Your task to perform on an android device: open app "VLC for Android" (install if not already installed), go to login, and select forgot password Image 0: 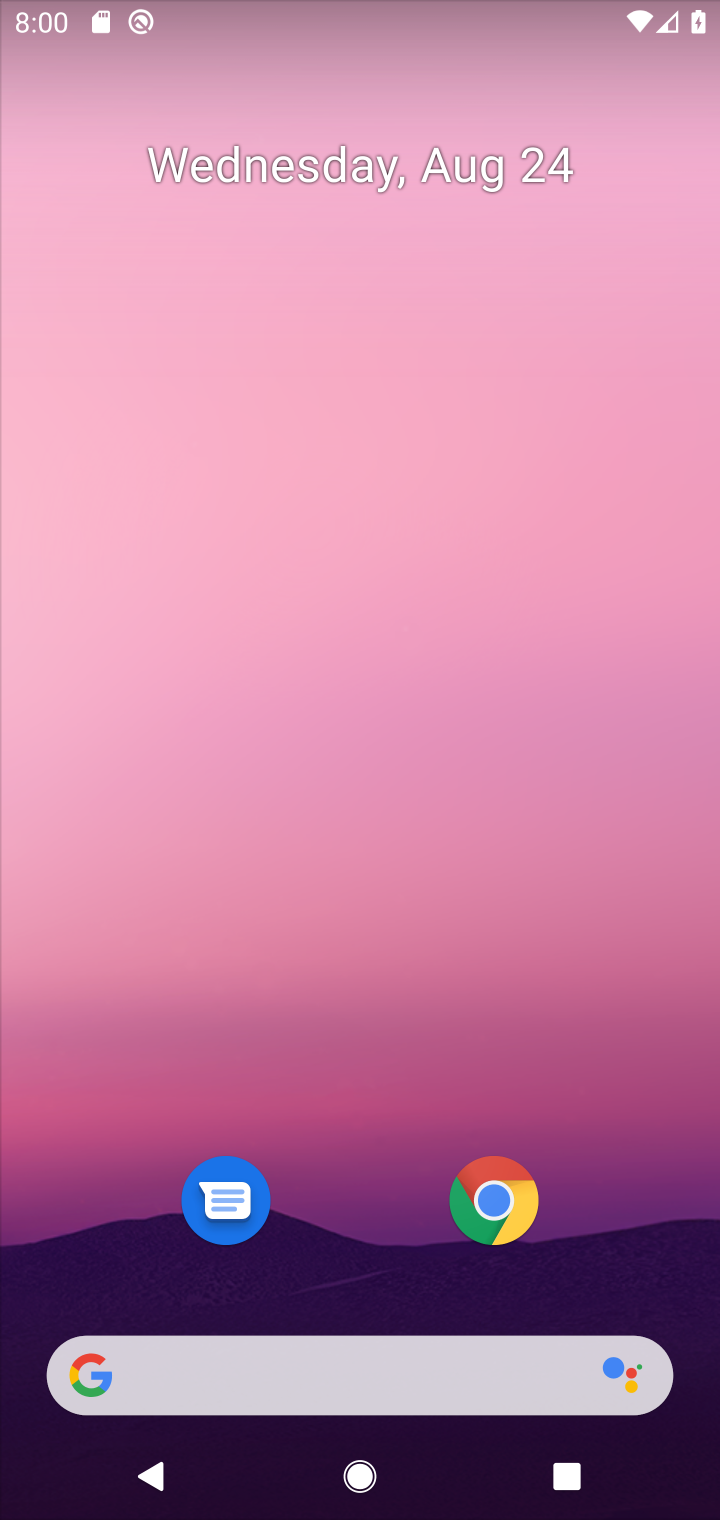
Step 0: drag from (328, 969) to (340, 4)
Your task to perform on an android device: open app "VLC for Android" (install if not already installed), go to login, and select forgot password Image 1: 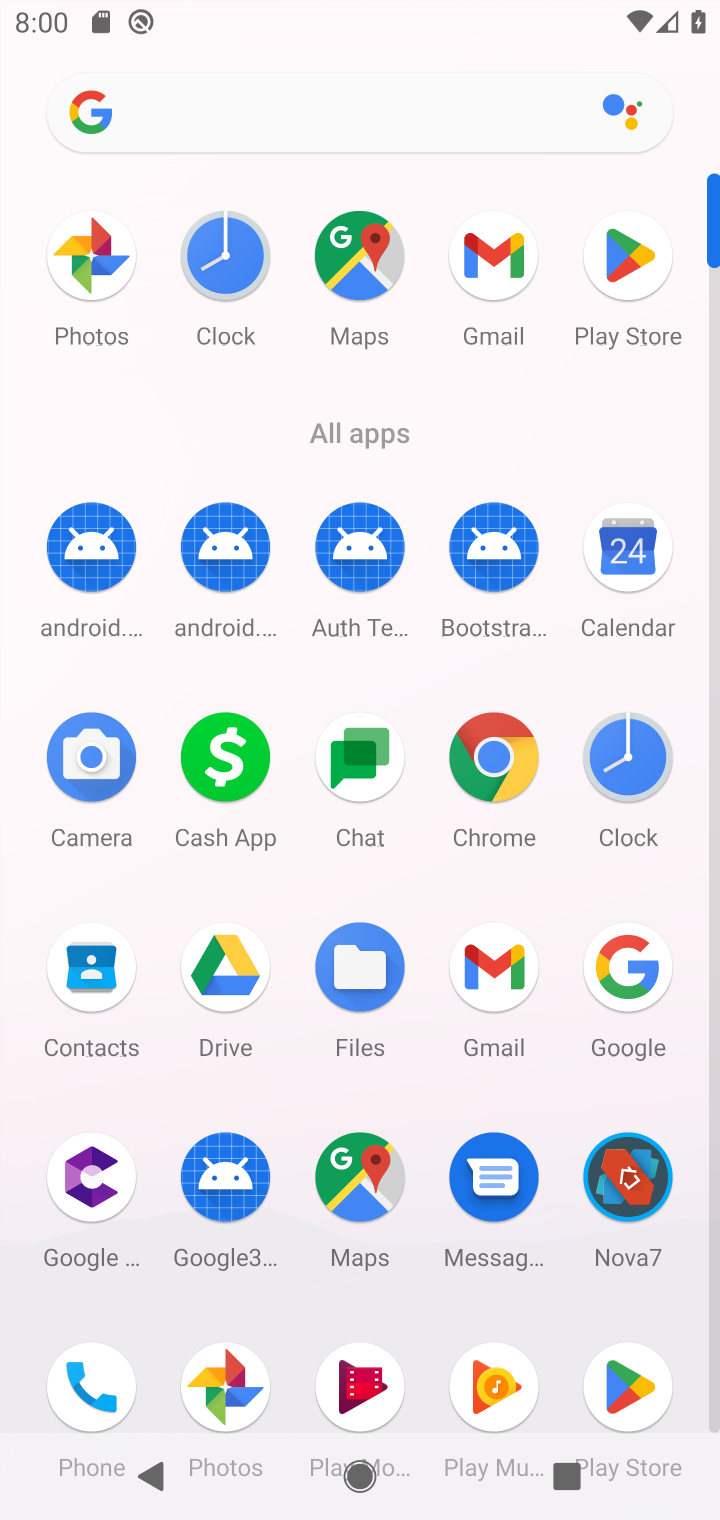
Step 1: click (652, 296)
Your task to perform on an android device: open app "VLC for Android" (install if not already installed), go to login, and select forgot password Image 2: 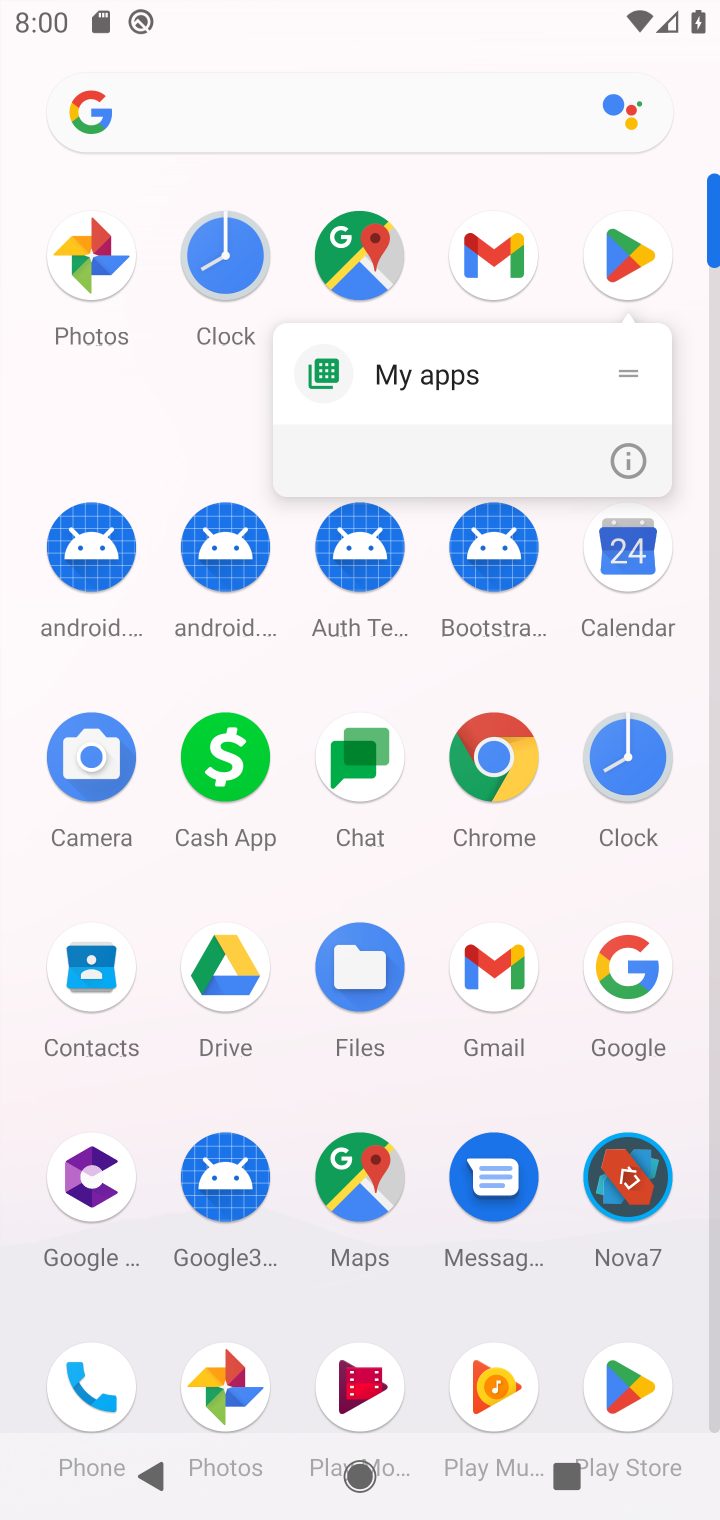
Step 2: click (642, 225)
Your task to perform on an android device: open app "VLC for Android" (install if not already installed), go to login, and select forgot password Image 3: 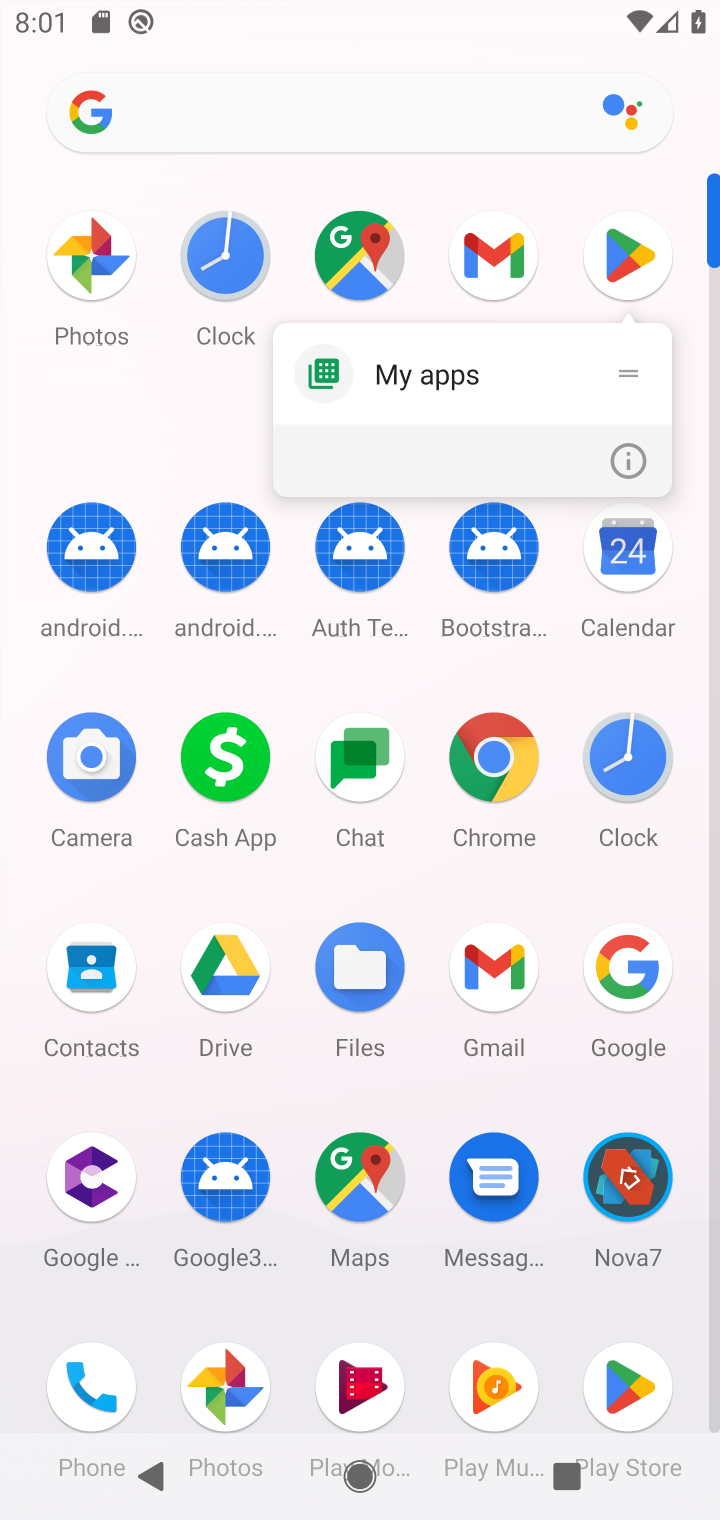
Step 3: click (617, 261)
Your task to perform on an android device: open app "VLC for Android" (install if not already installed), go to login, and select forgot password Image 4: 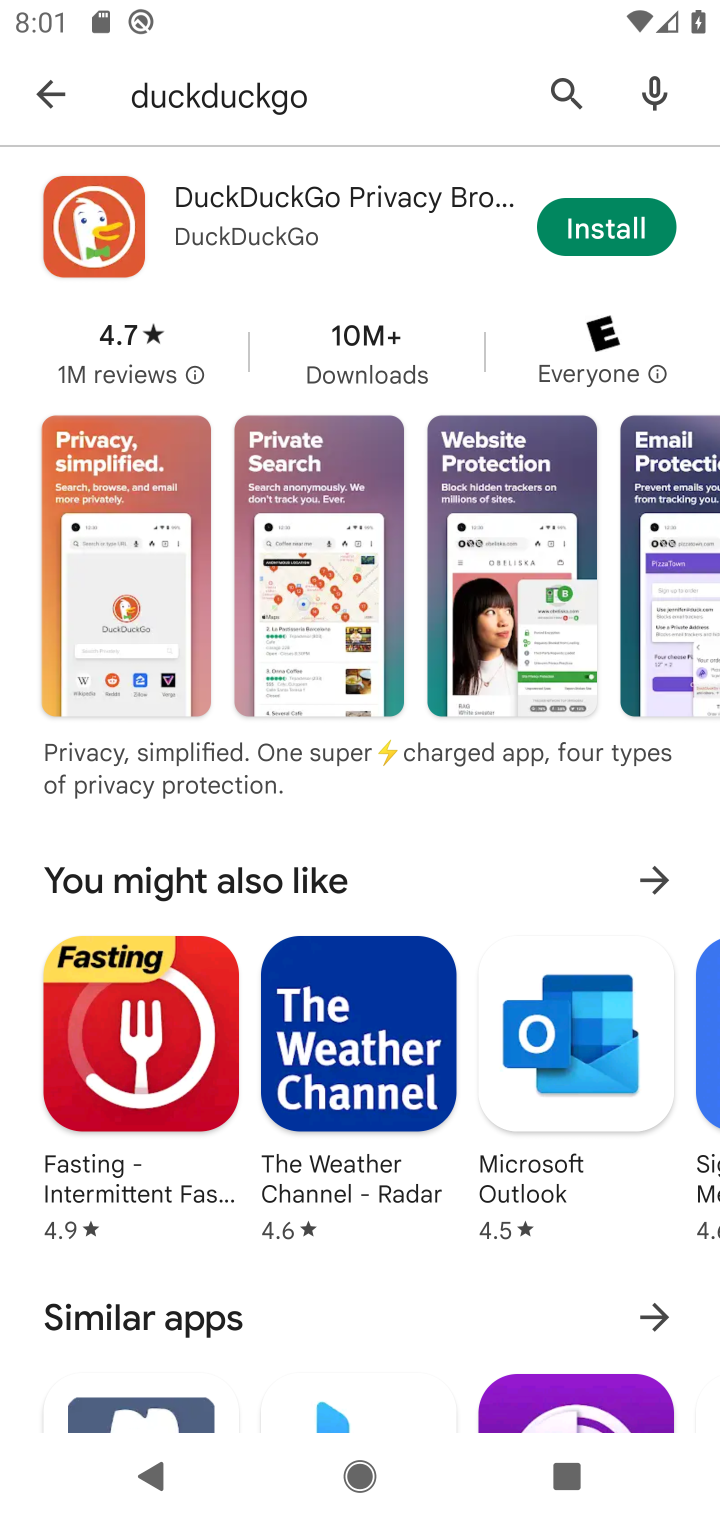
Step 4: click (315, 102)
Your task to perform on an android device: open app "VLC for Android" (install if not already installed), go to login, and select forgot password Image 5: 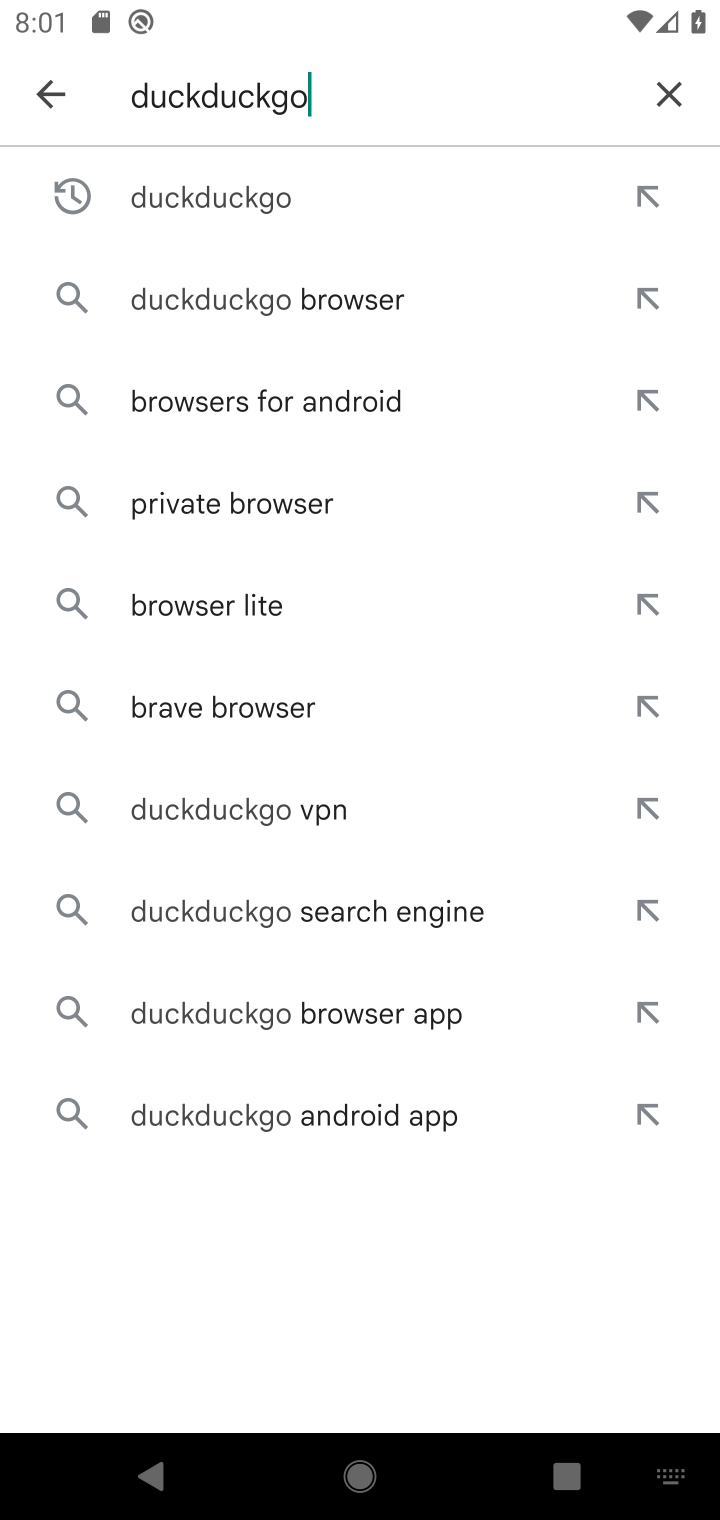
Step 5: click (664, 88)
Your task to perform on an android device: open app "VLC for Android" (install if not already installed), go to login, and select forgot password Image 6: 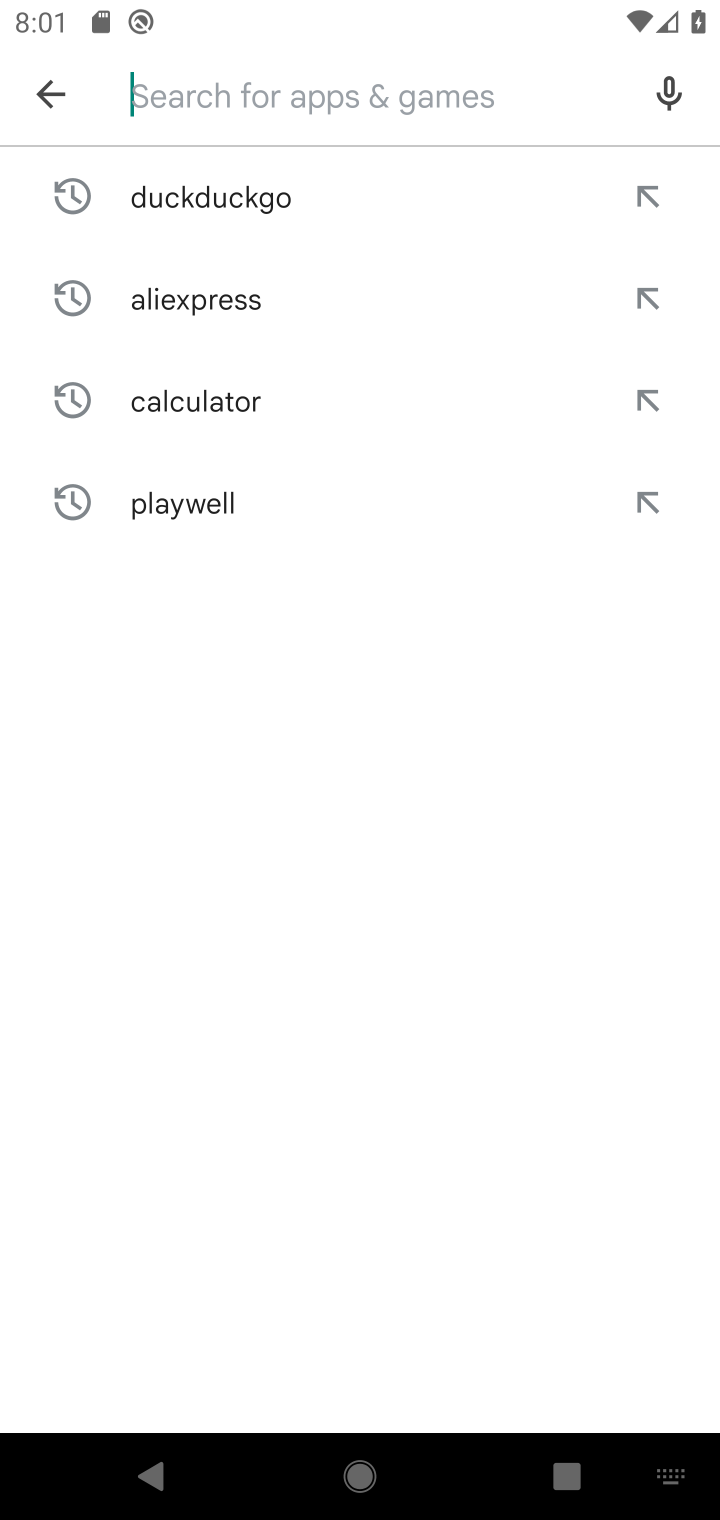
Step 6: type "VLC"
Your task to perform on an android device: open app "VLC for Android" (install if not already installed), go to login, and select forgot password Image 7: 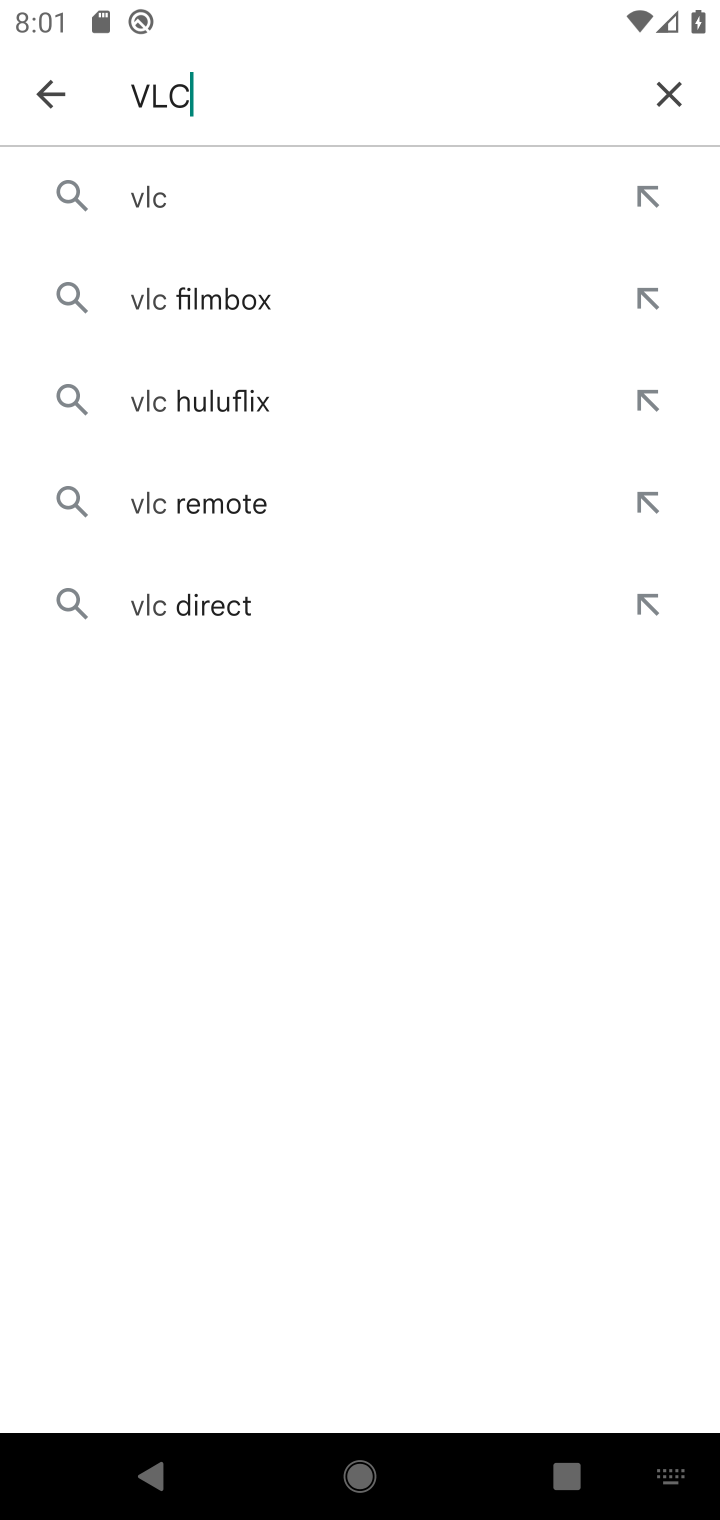
Step 7: click (264, 202)
Your task to perform on an android device: open app "VLC for Android" (install if not already installed), go to login, and select forgot password Image 8: 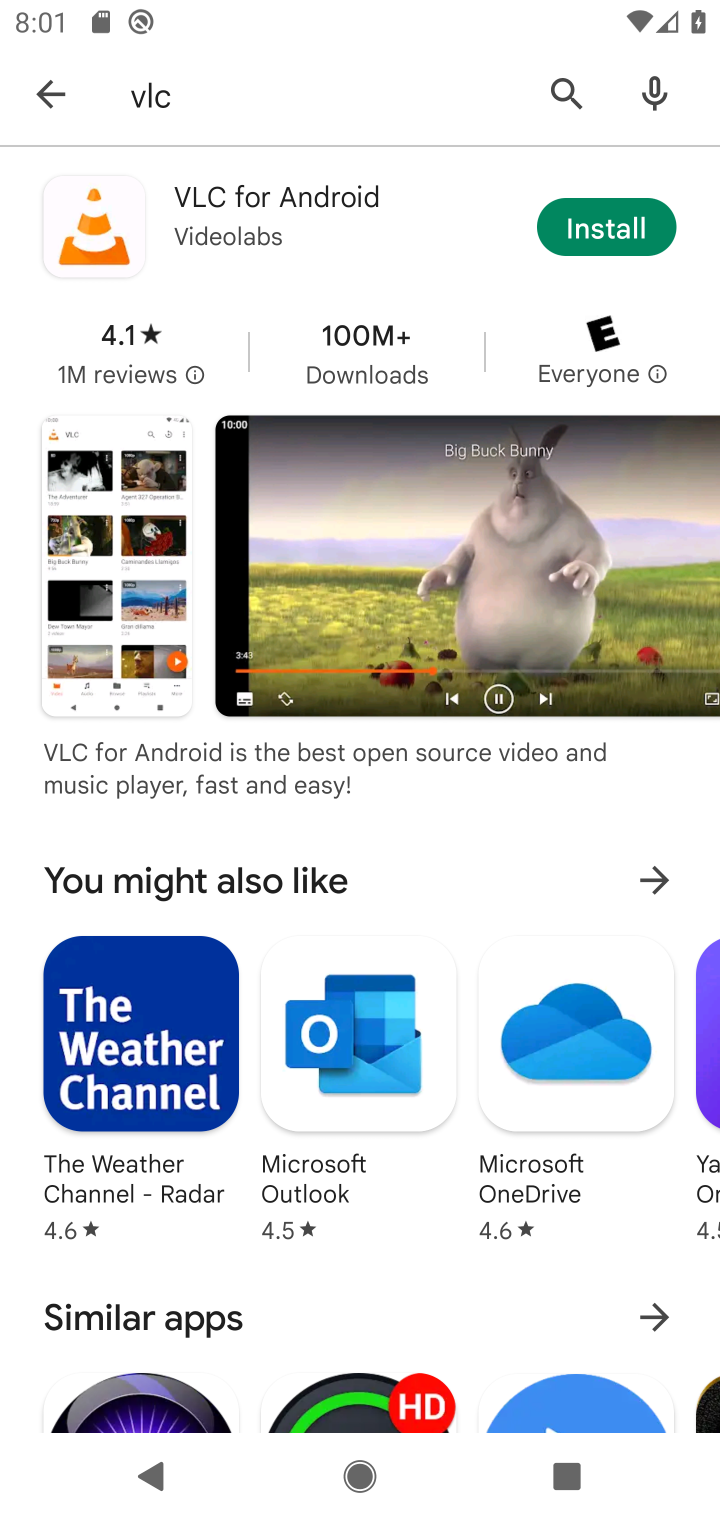
Step 8: click (651, 218)
Your task to perform on an android device: open app "VLC for Android" (install if not already installed), go to login, and select forgot password Image 9: 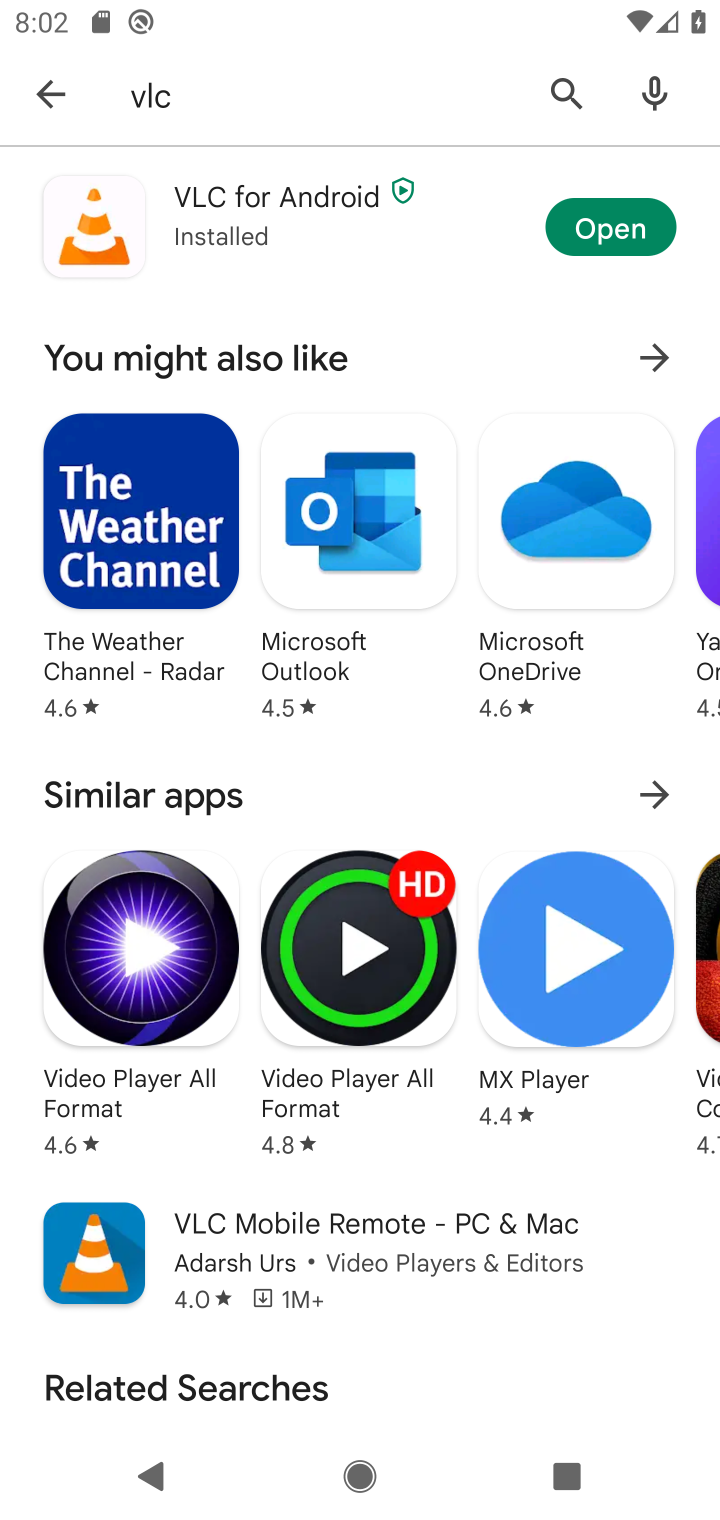
Step 9: click (584, 217)
Your task to perform on an android device: open app "VLC for Android" (install if not already installed), go to login, and select forgot password Image 10: 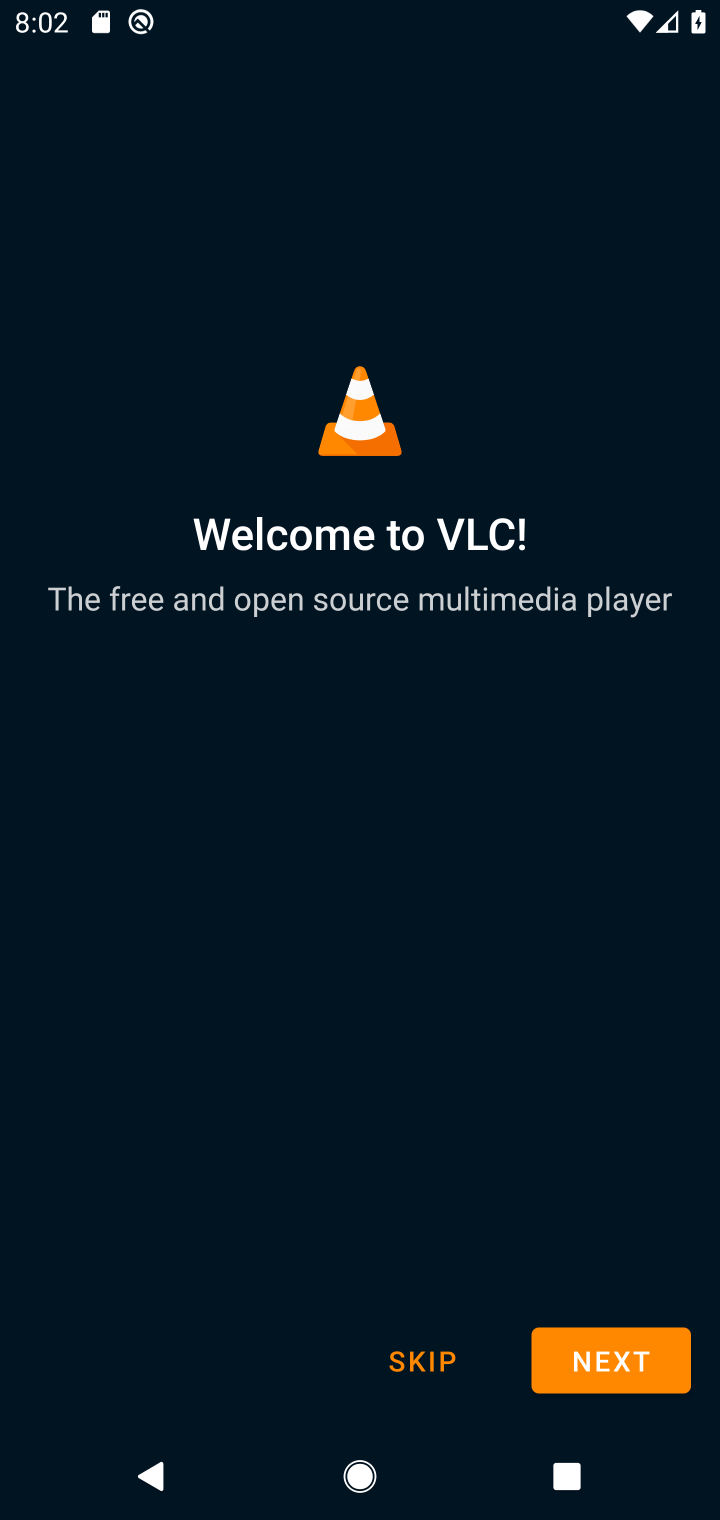
Step 10: click (621, 1376)
Your task to perform on an android device: open app "VLC for Android" (install if not already installed), go to login, and select forgot password Image 11: 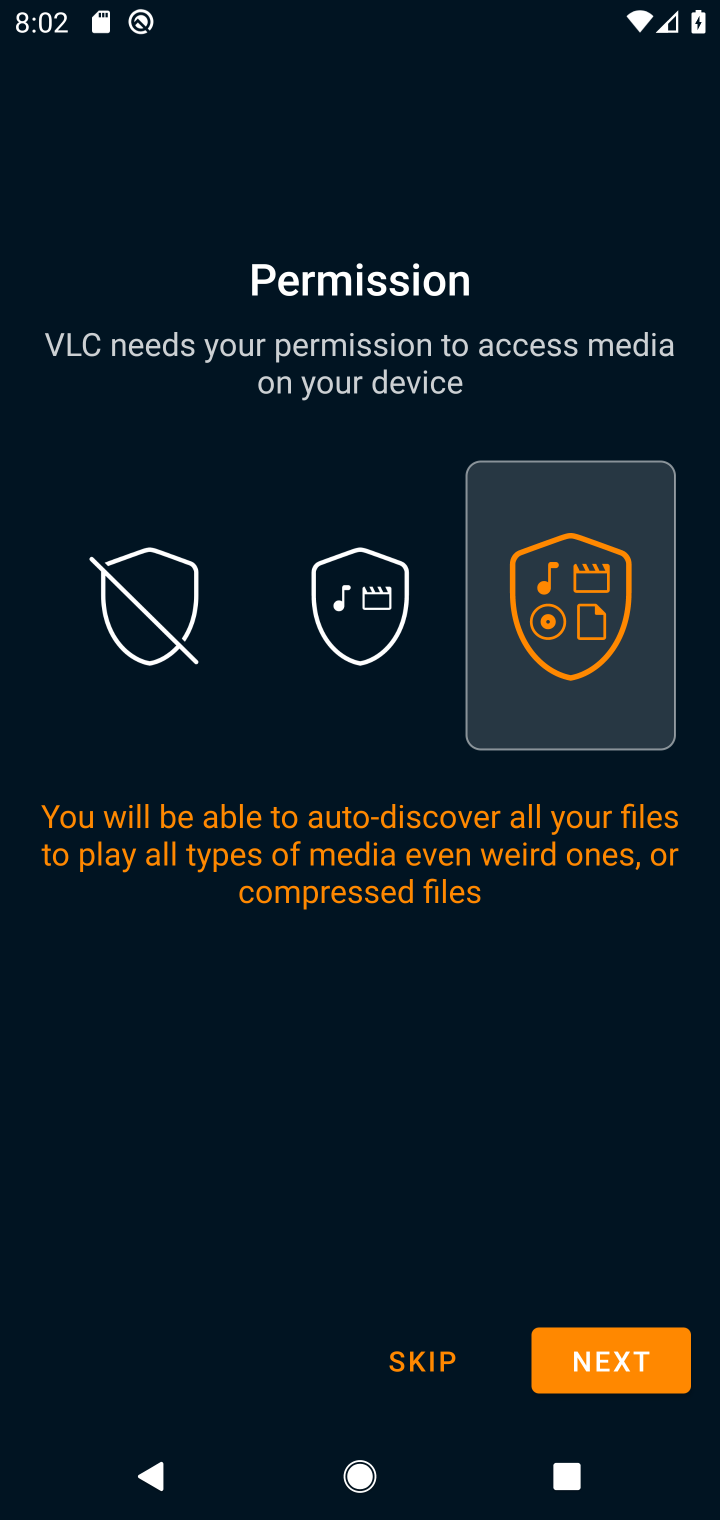
Step 11: click (613, 1346)
Your task to perform on an android device: open app "VLC for Android" (install if not already installed), go to login, and select forgot password Image 12: 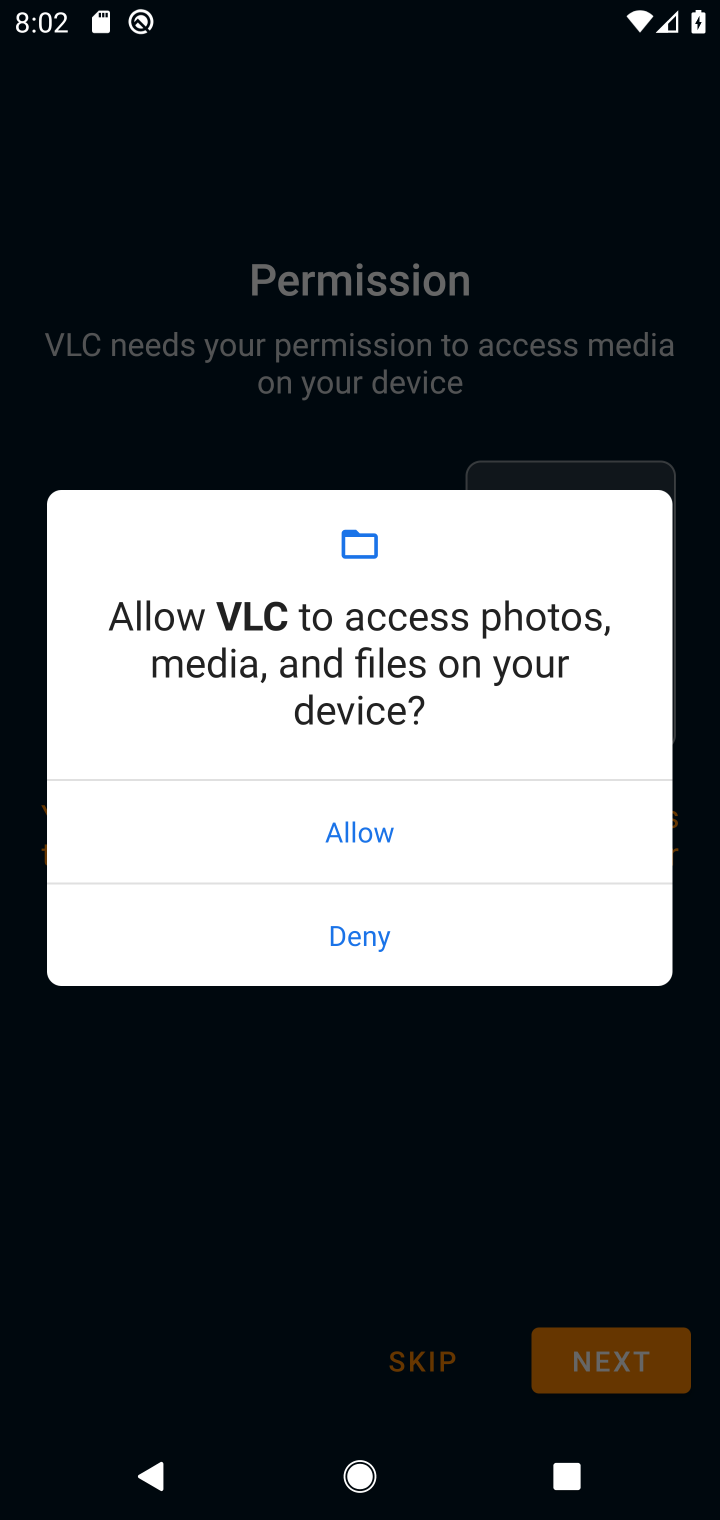
Step 12: click (368, 832)
Your task to perform on an android device: open app "VLC for Android" (install if not already installed), go to login, and select forgot password Image 13: 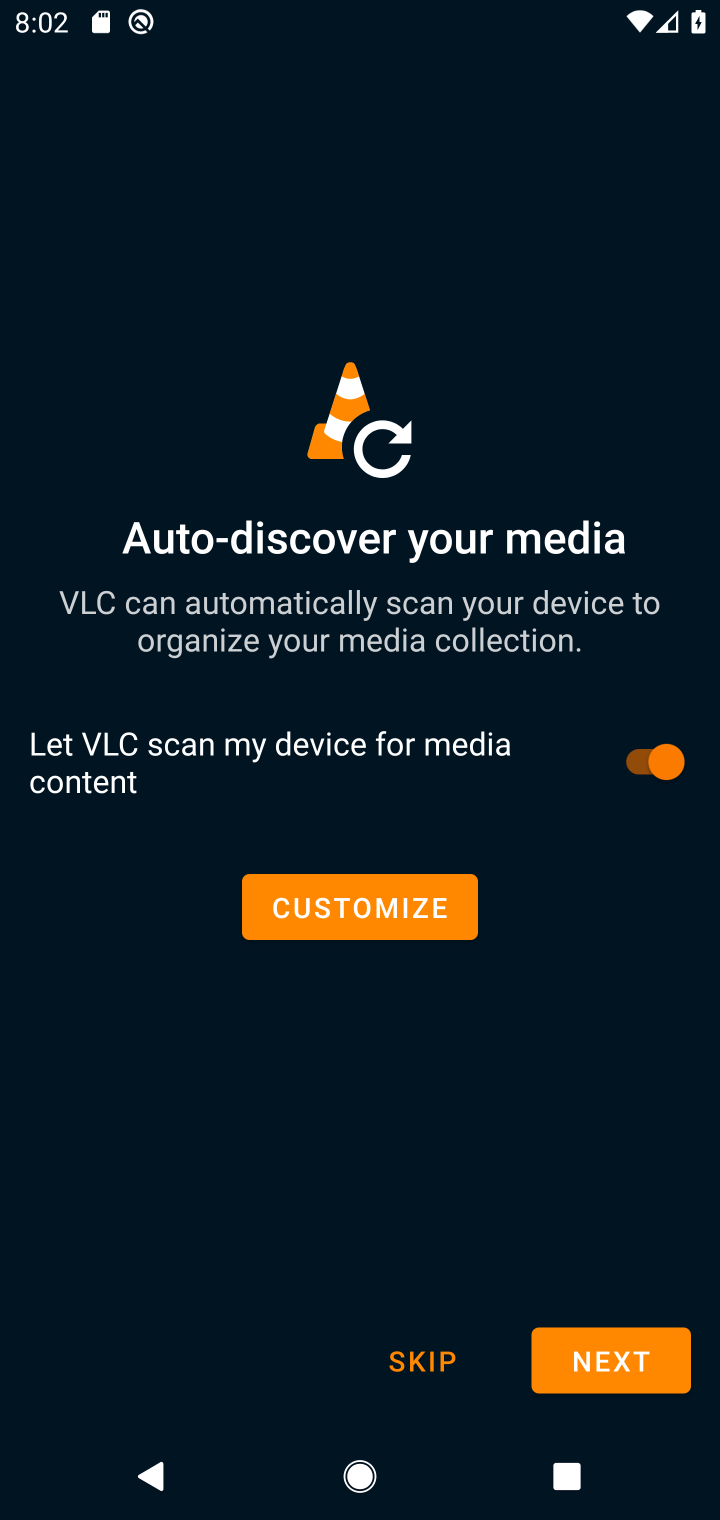
Step 13: click (621, 1371)
Your task to perform on an android device: open app "VLC for Android" (install if not already installed), go to login, and select forgot password Image 14: 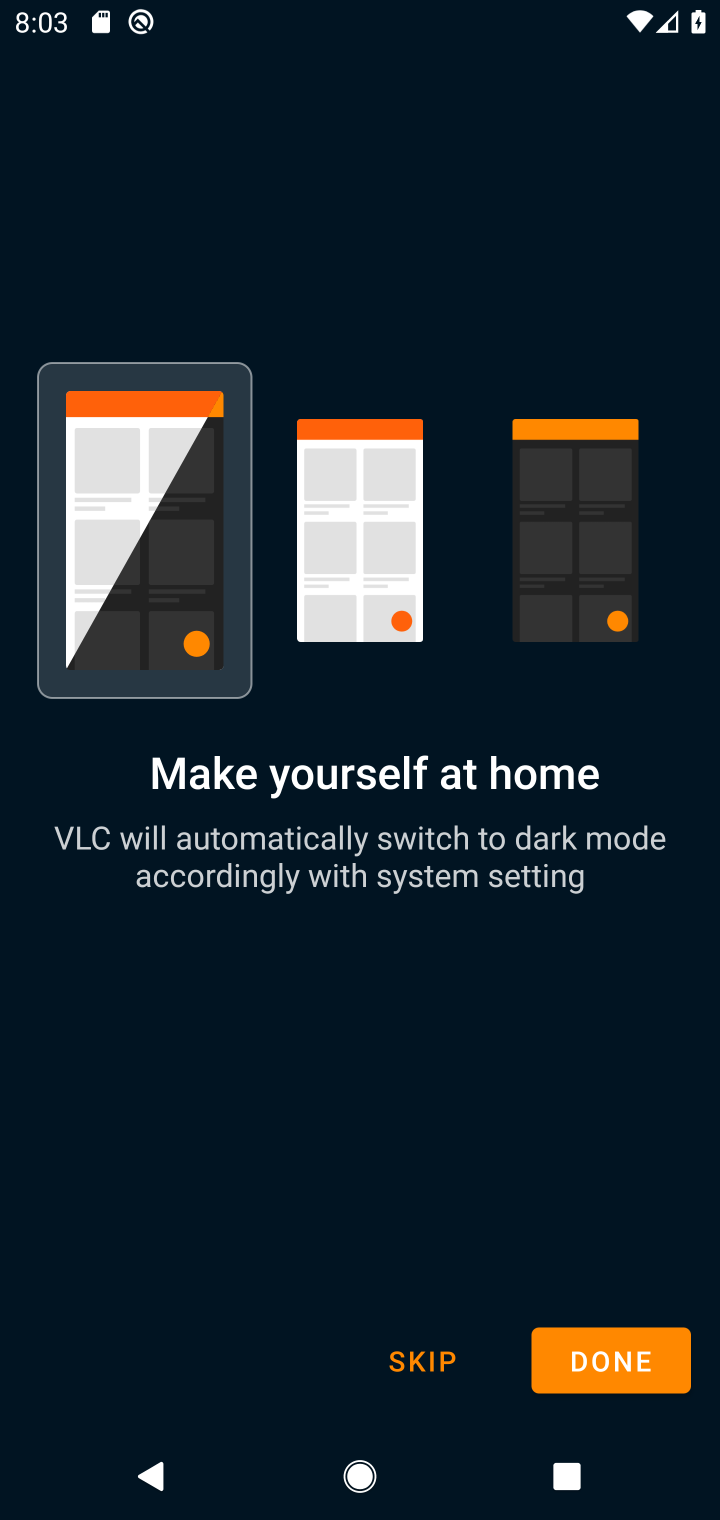
Step 14: click (577, 1323)
Your task to perform on an android device: open app "VLC for Android" (install if not already installed), go to login, and select forgot password Image 15: 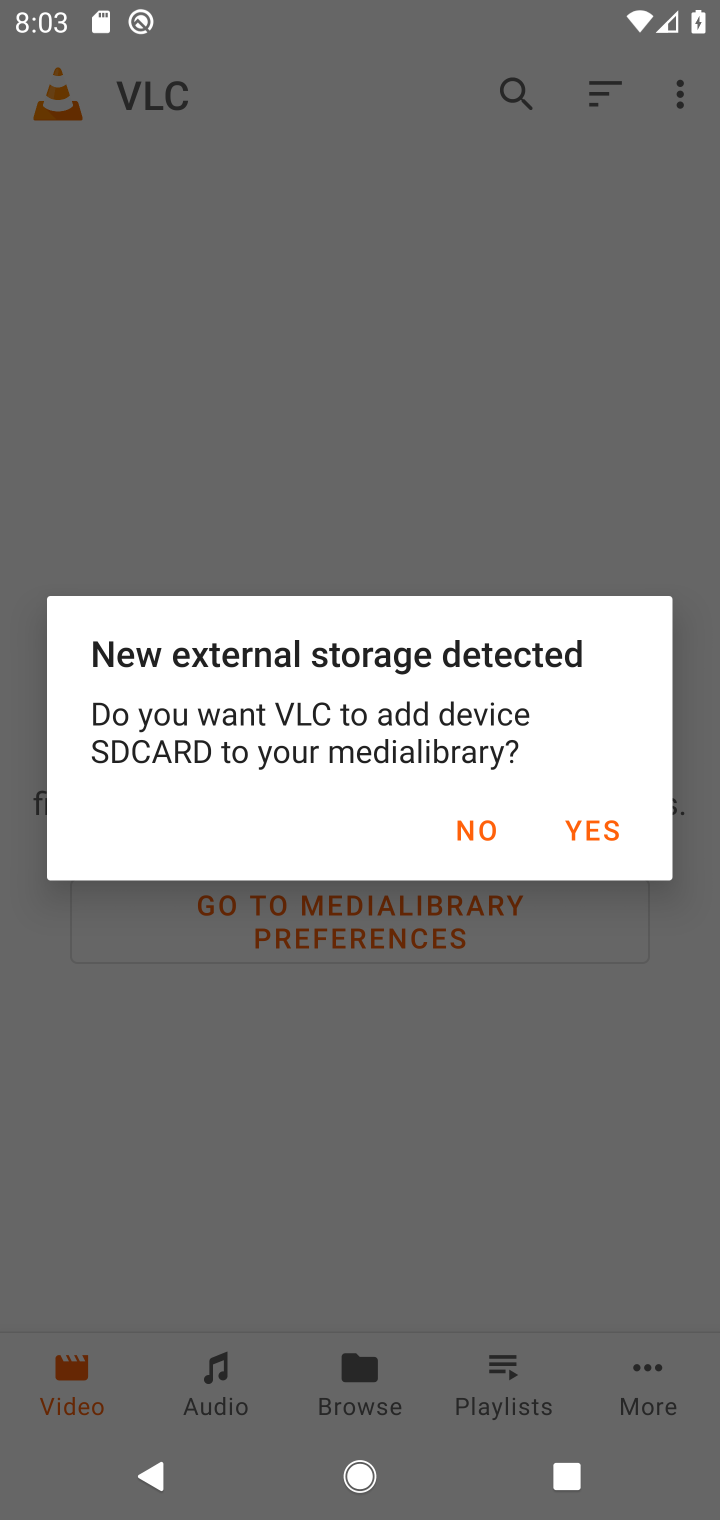
Step 15: click (576, 840)
Your task to perform on an android device: open app "VLC for Android" (install if not already installed), go to login, and select forgot password Image 16: 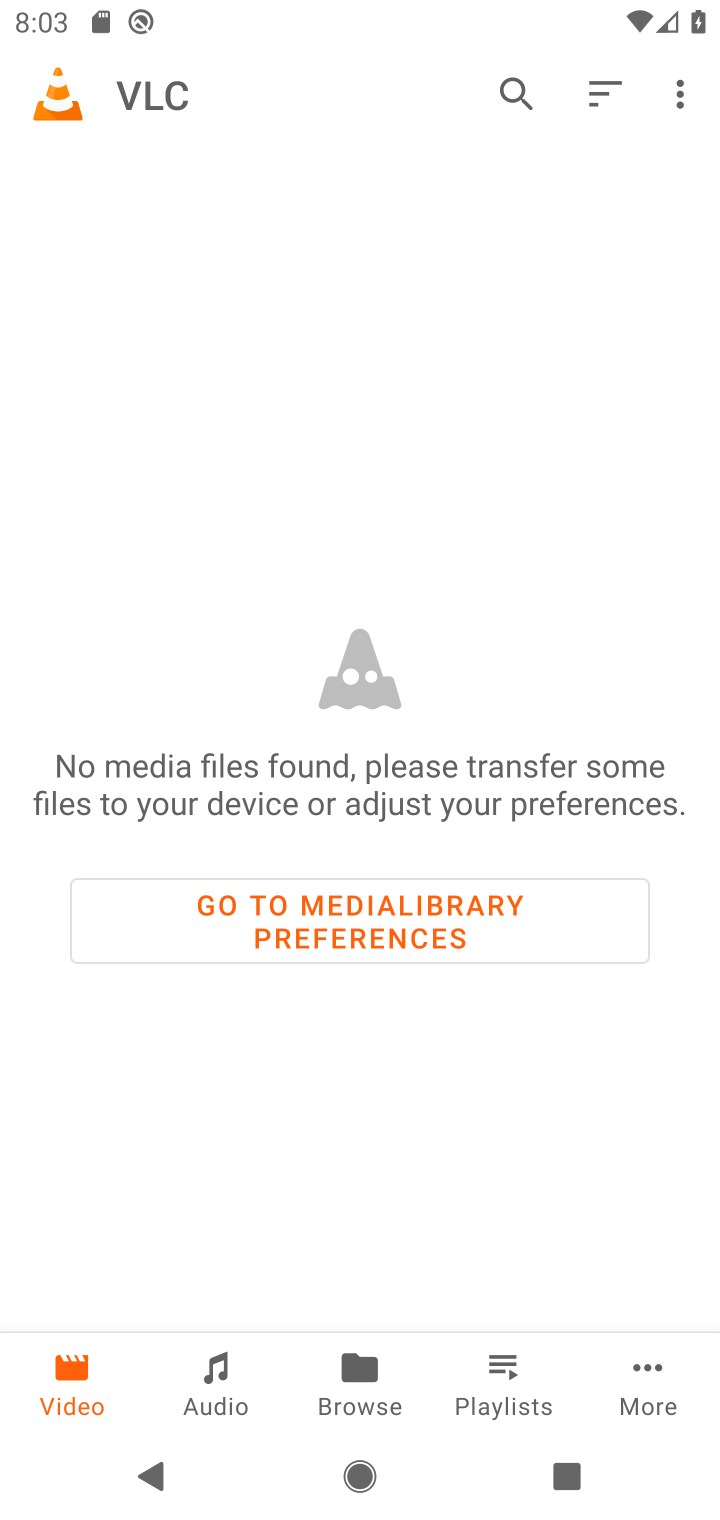
Step 16: click (667, 1387)
Your task to perform on an android device: open app "VLC for Android" (install if not already installed), go to login, and select forgot password Image 17: 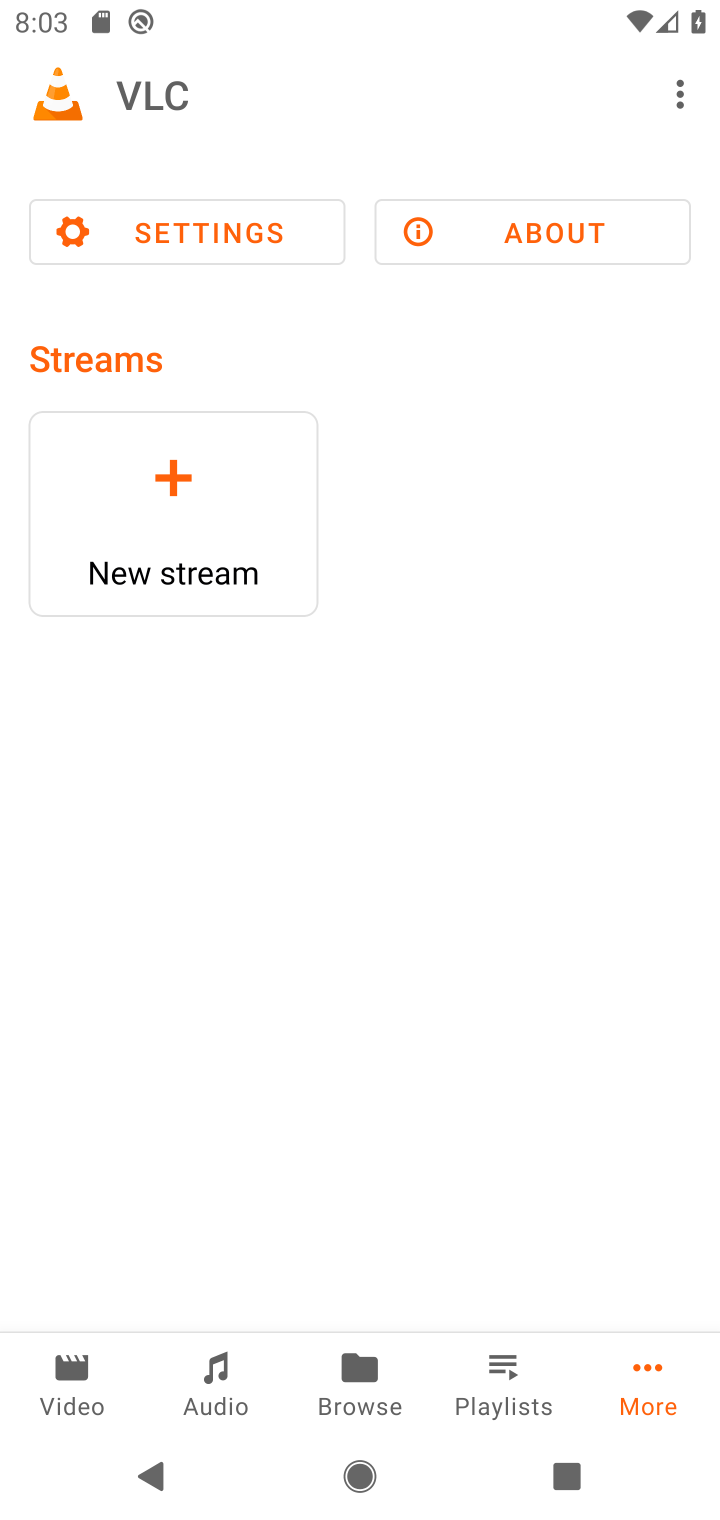
Step 17: click (192, 194)
Your task to perform on an android device: open app "VLC for Android" (install if not already installed), go to login, and select forgot password Image 18: 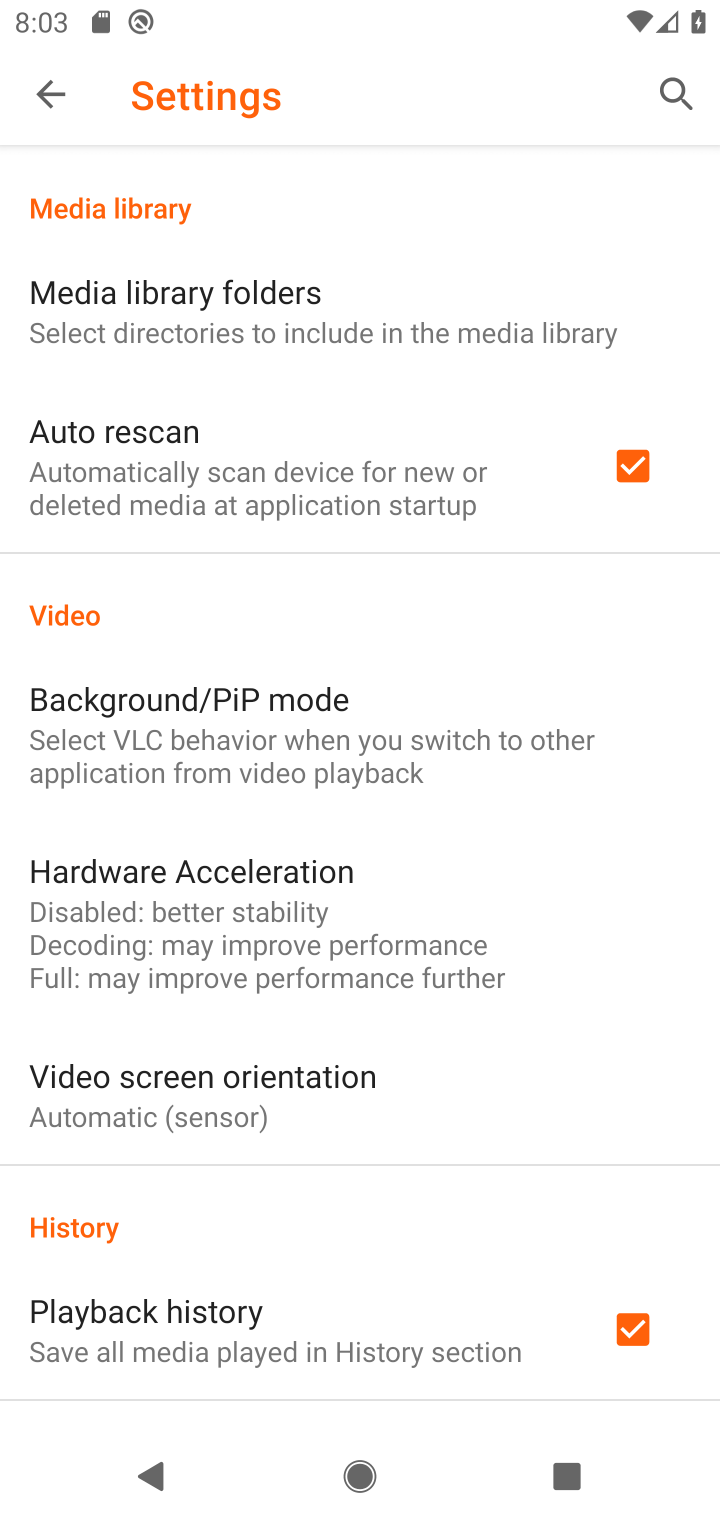
Step 18: drag from (357, 1296) to (403, 2)
Your task to perform on an android device: open app "VLC for Android" (install if not already installed), go to login, and select forgot password Image 19: 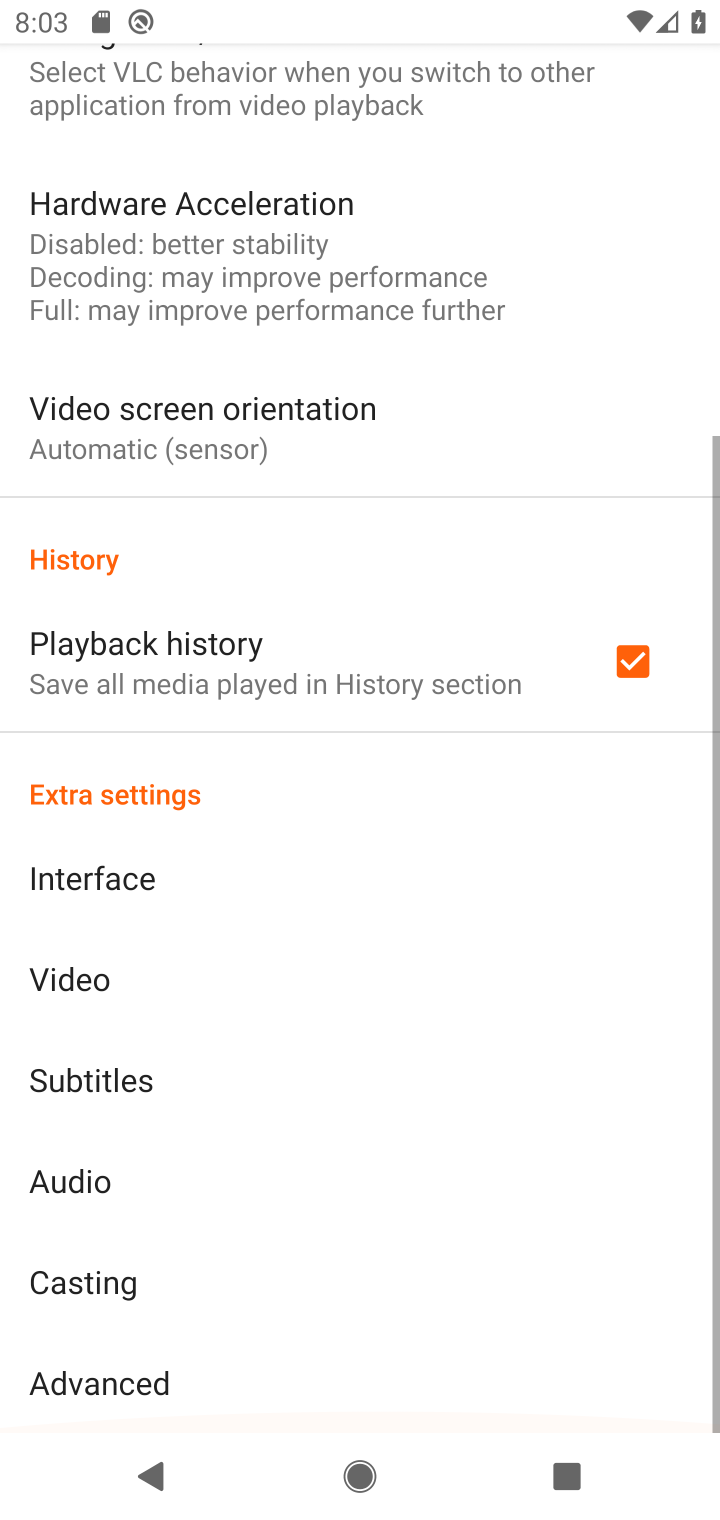
Step 19: drag from (165, 1023) to (206, 729)
Your task to perform on an android device: open app "VLC for Android" (install if not already installed), go to login, and select forgot password Image 20: 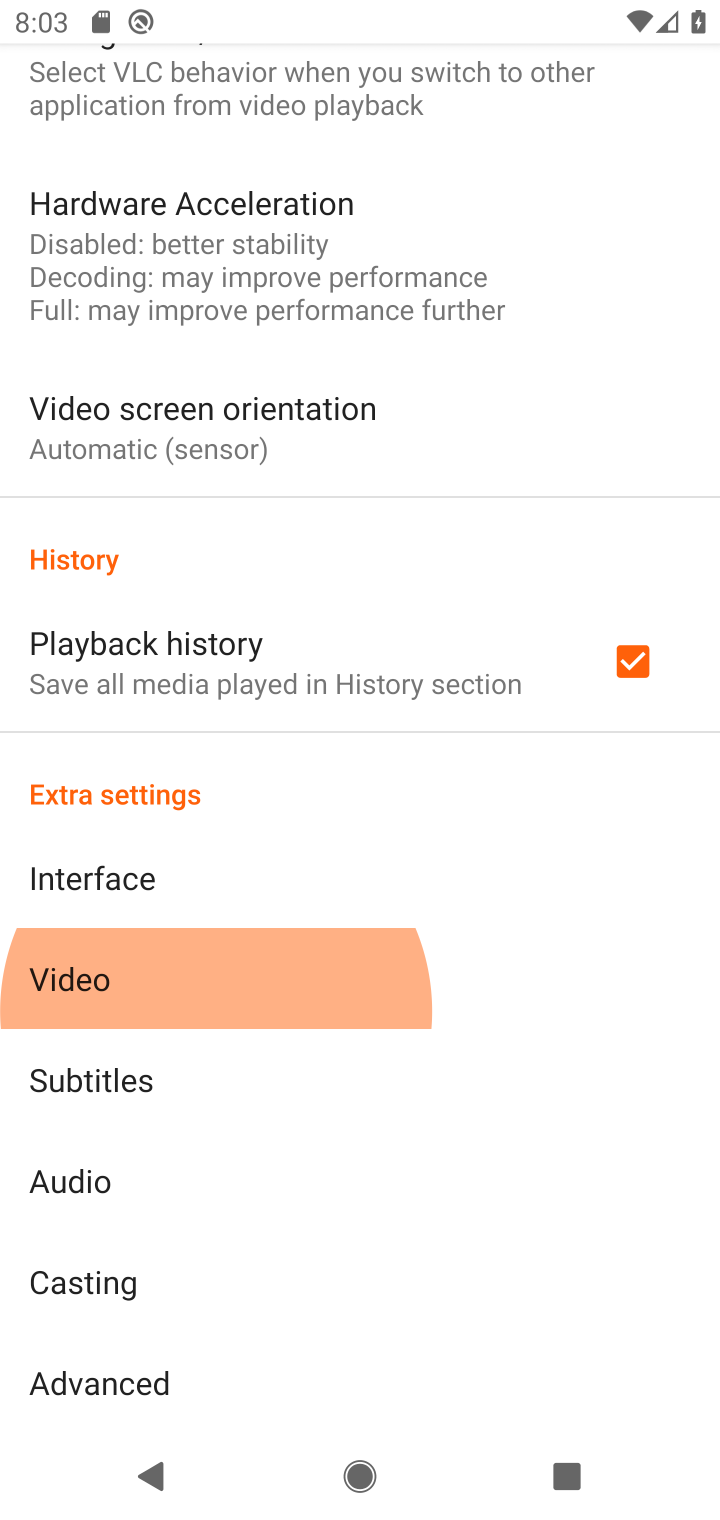
Step 20: click (203, 660)
Your task to perform on an android device: open app "VLC for Android" (install if not already installed), go to login, and select forgot password Image 21: 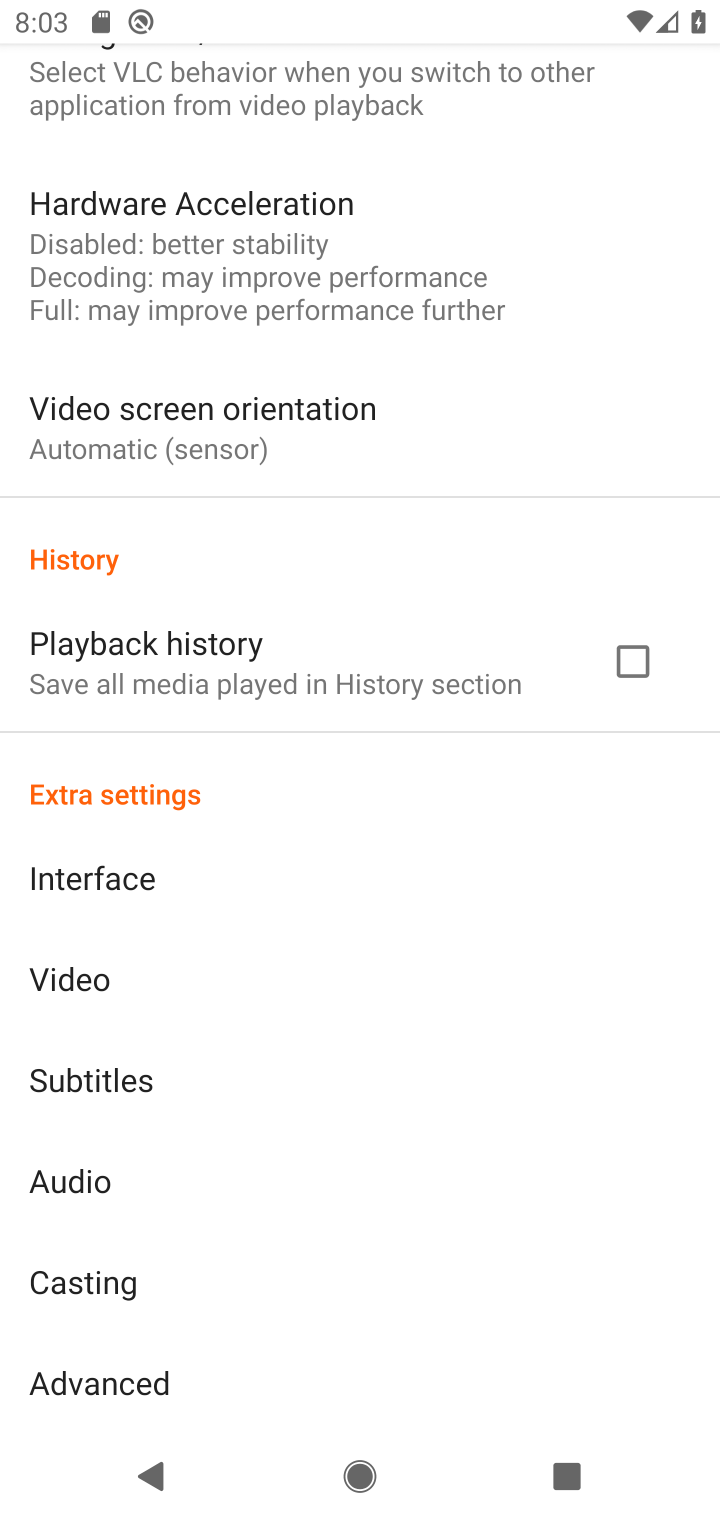
Step 21: task complete